Your task to perform on an android device: Turn off the flashlight Image 0: 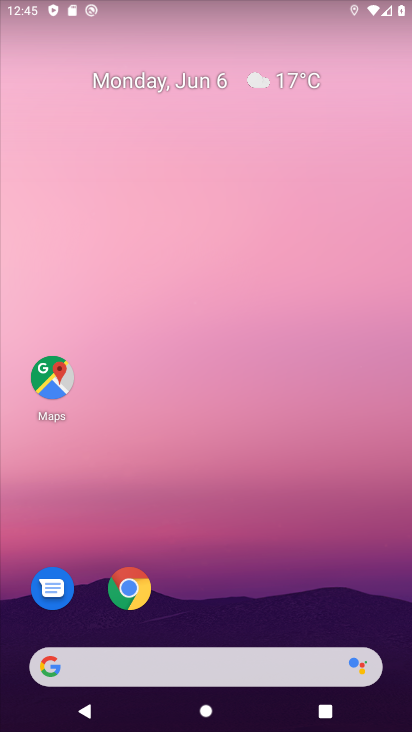
Step 0: drag from (225, 220) to (284, 723)
Your task to perform on an android device: Turn off the flashlight Image 1: 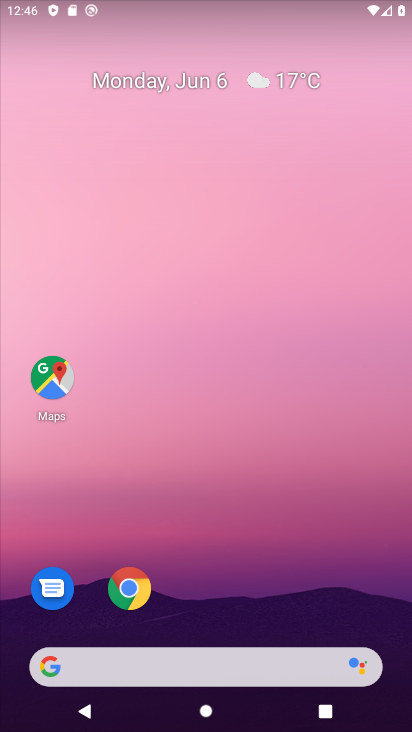
Step 1: drag from (241, 5) to (271, 663)
Your task to perform on an android device: Turn off the flashlight Image 2: 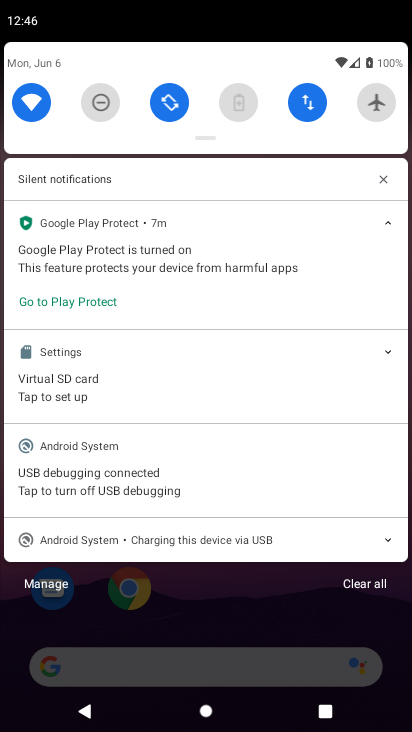
Step 2: drag from (196, 157) to (228, 658)
Your task to perform on an android device: Turn off the flashlight Image 3: 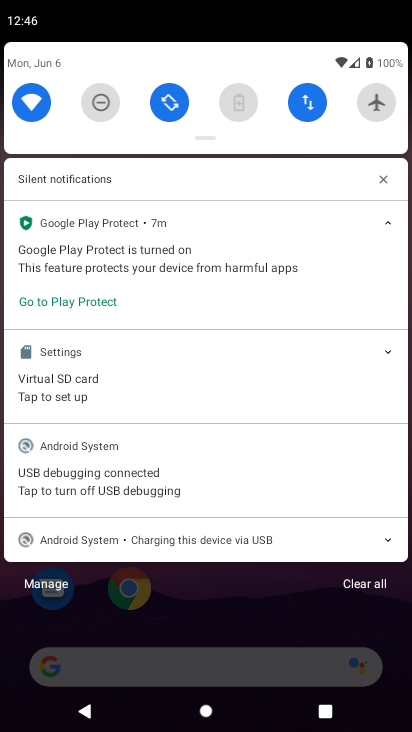
Step 3: drag from (188, 133) to (190, 700)
Your task to perform on an android device: Turn off the flashlight Image 4: 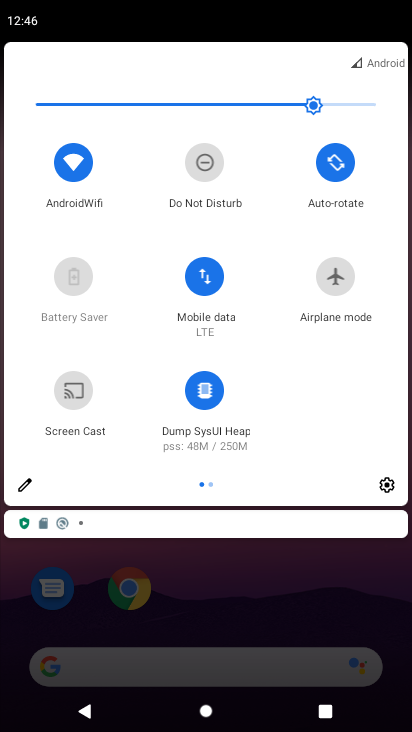
Step 4: click (24, 479)
Your task to perform on an android device: Turn off the flashlight Image 5: 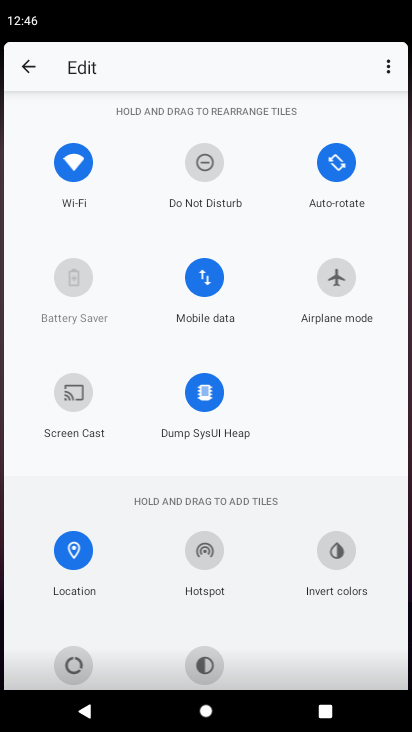
Step 5: task complete